Your task to perform on an android device: open app "Google Drive" (install if not already installed) Image 0: 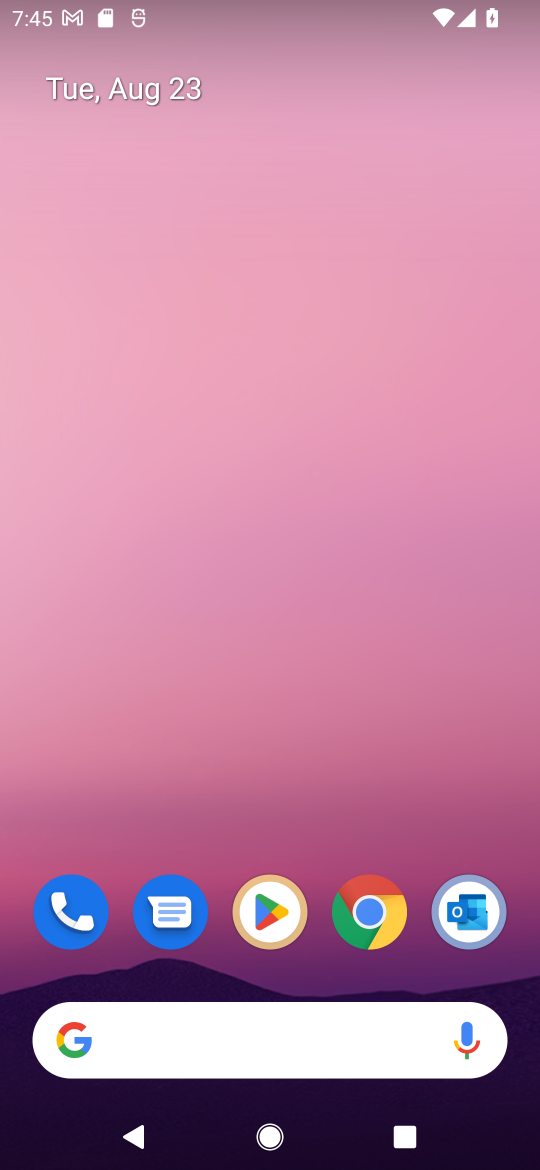
Step 0: click (269, 920)
Your task to perform on an android device: open app "Google Drive" (install if not already installed) Image 1: 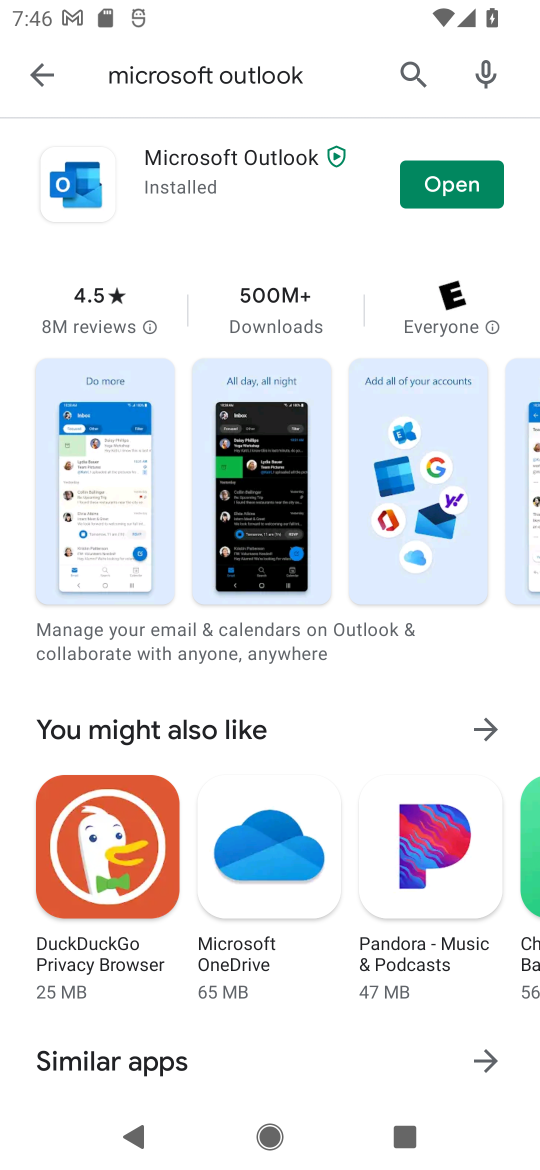
Step 1: click (412, 70)
Your task to perform on an android device: open app "Google Drive" (install if not already installed) Image 2: 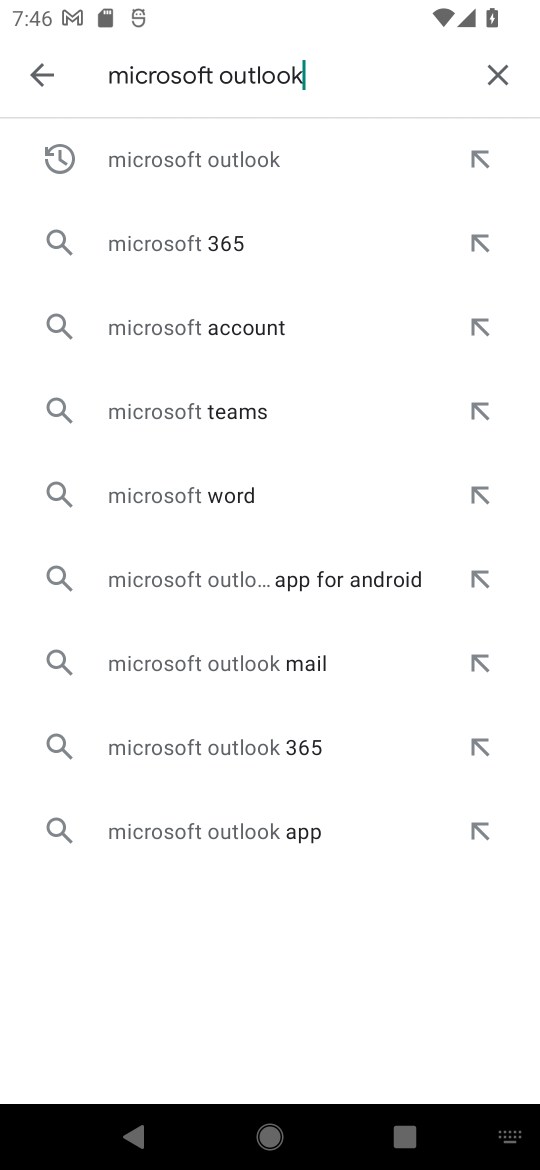
Step 2: click (499, 66)
Your task to perform on an android device: open app "Google Drive" (install if not already installed) Image 3: 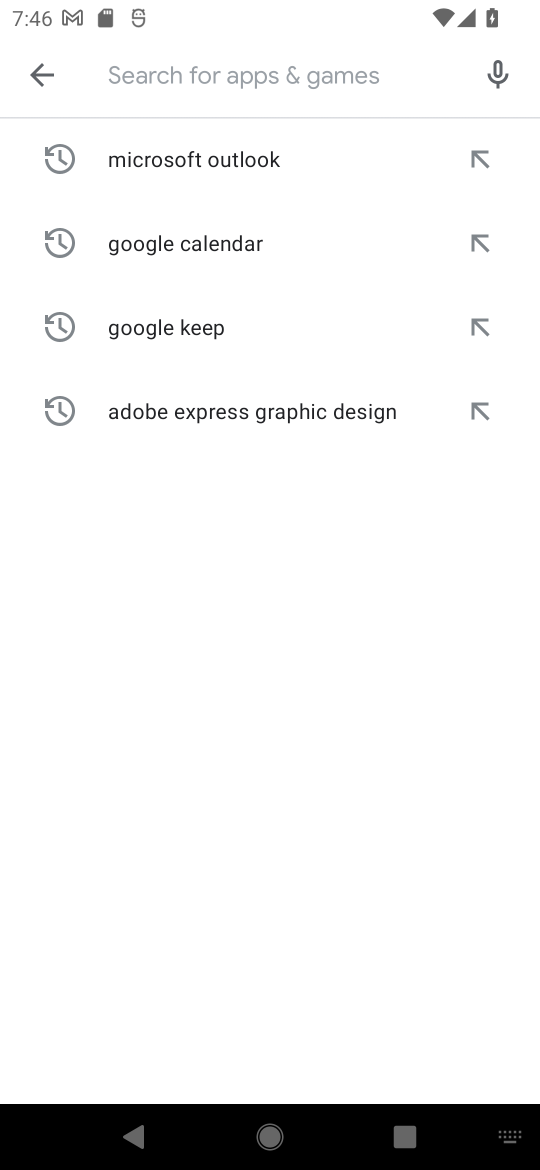
Step 3: type "Google Drive"
Your task to perform on an android device: open app "Google Drive" (install if not already installed) Image 4: 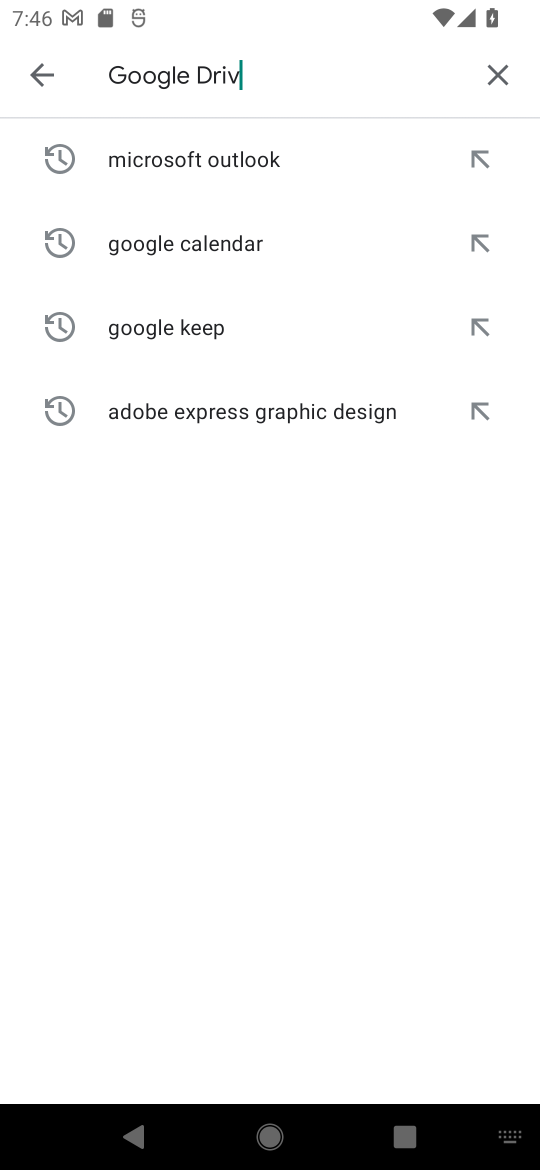
Step 4: type ""
Your task to perform on an android device: open app "Google Drive" (install if not already installed) Image 5: 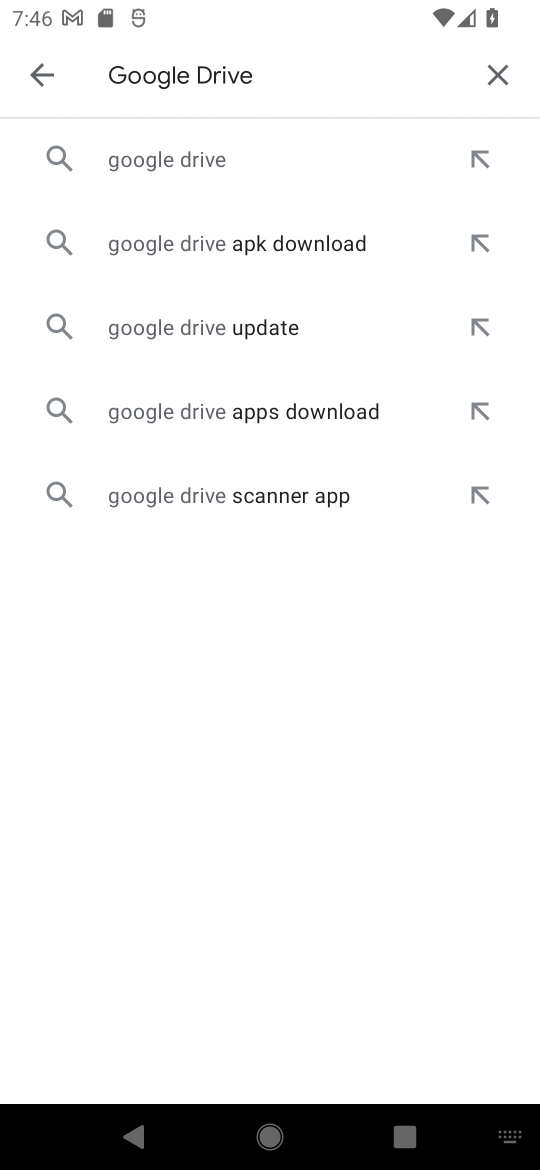
Step 5: click (174, 151)
Your task to perform on an android device: open app "Google Drive" (install if not already installed) Image 6: 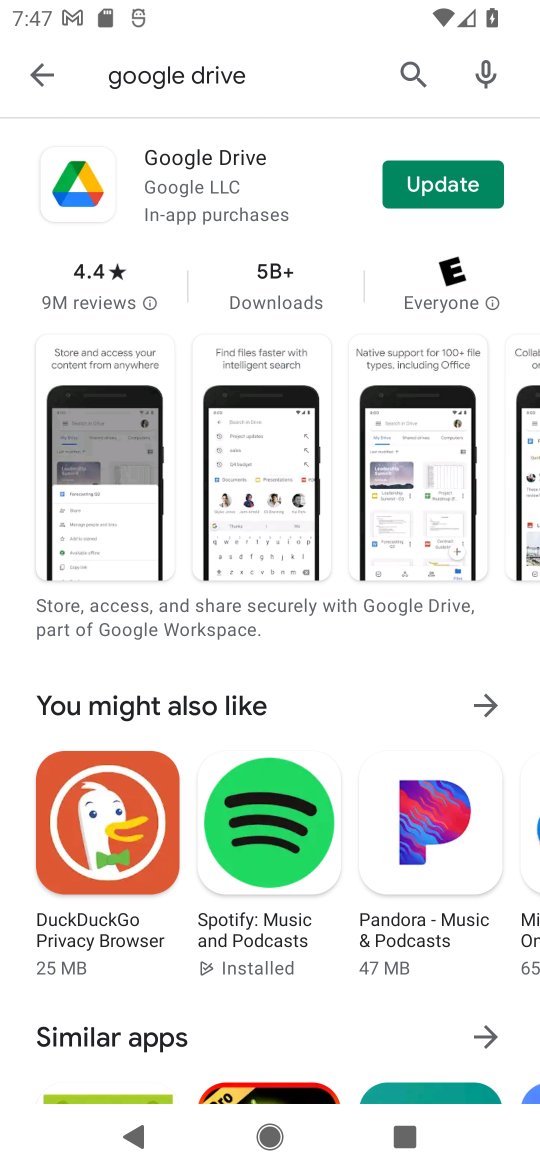
Step 6: task complete